Your task to perform on an android device: turn vacation reply on in the gmail app Image 0: 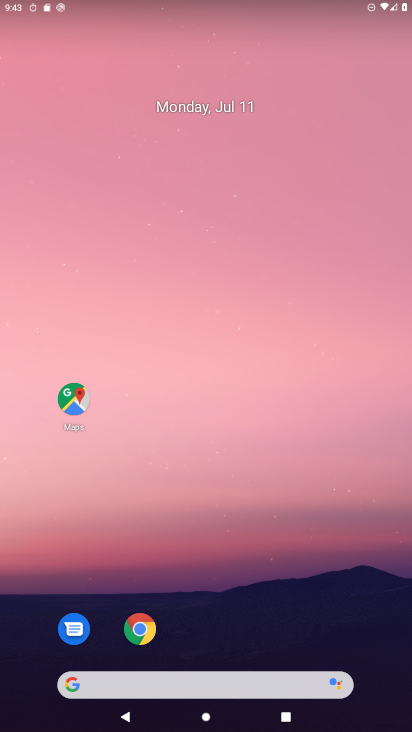
Step 0: drag from (227, 646) to (247, 98)
Your task to perform on an android device: turn vacation reply on in the gmail app Image 1: 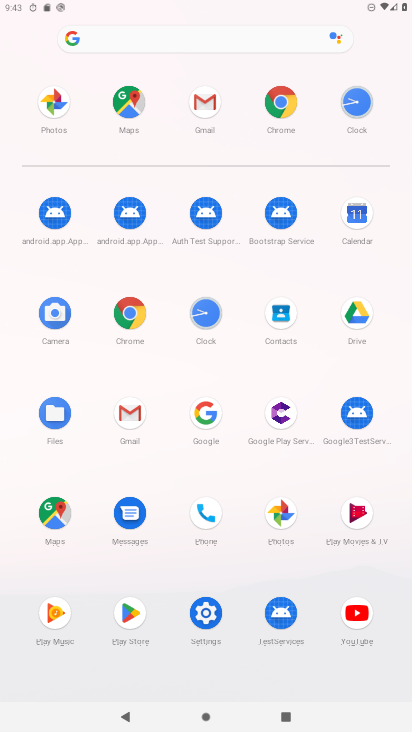
Step 1: click (208, 88)
Your task to perform on an android device: turn vacation reply on in the gmail app Image 2: 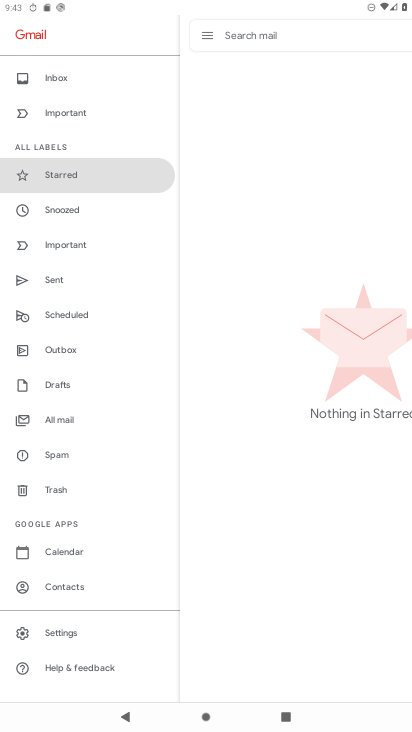
Step 2: click (107, 633)
Your task to perform on an android device: turn vacation reply on in the gmail app Image 3: 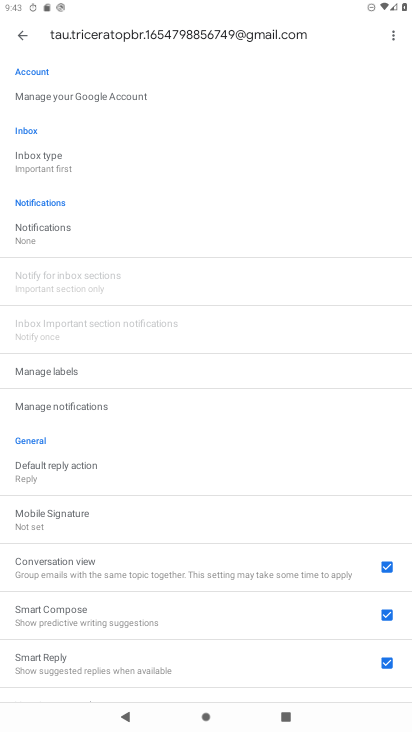
Step 3: drag from (175, 617) to (169, 184)
Your task to perform on an android device: turn vacation reply on in the gmail app Image 4: 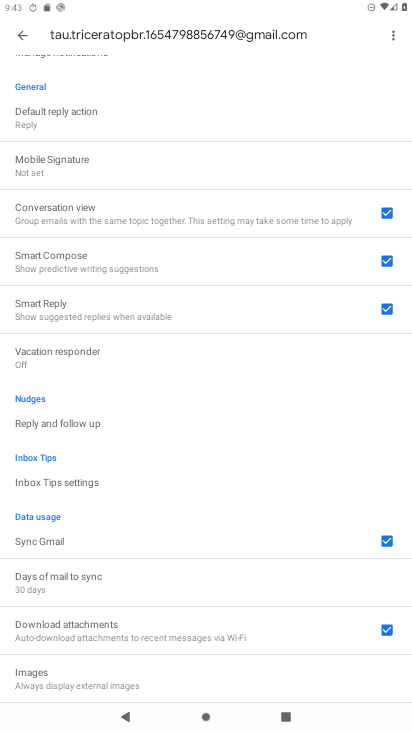
Step 4: click (146, 364)
Your task to perform on an android device: turn vacation reply on in the gmail app Image 5: 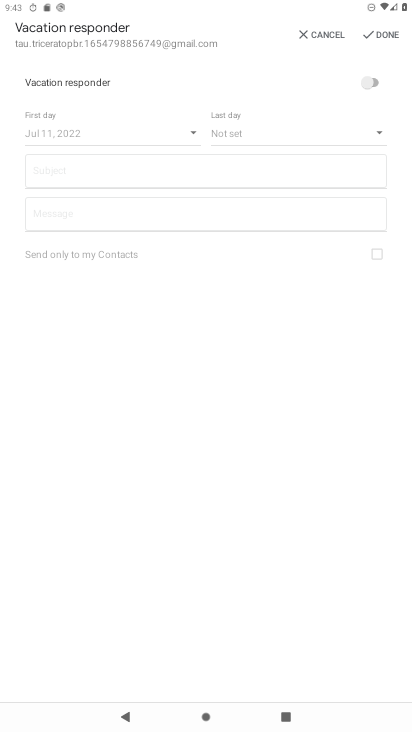
Step 5: click (365, 84)
Your task to perform on an android device: turn vacation reply on in the gmail app Image 6: 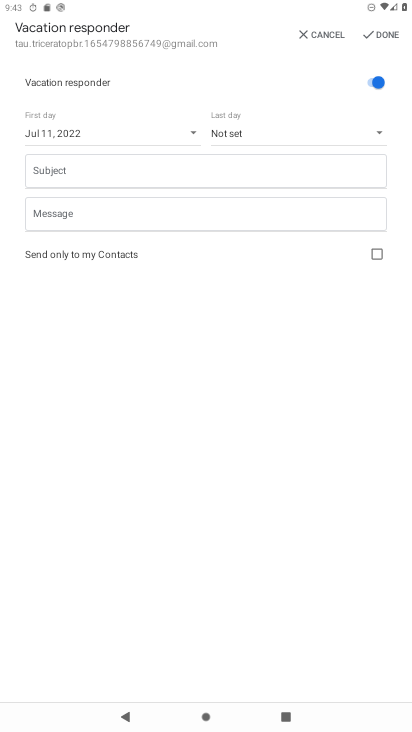
Step 6: click (383, 31)
Your task to perform on an android device: turn vacation reply on in the gmail app Image 7: 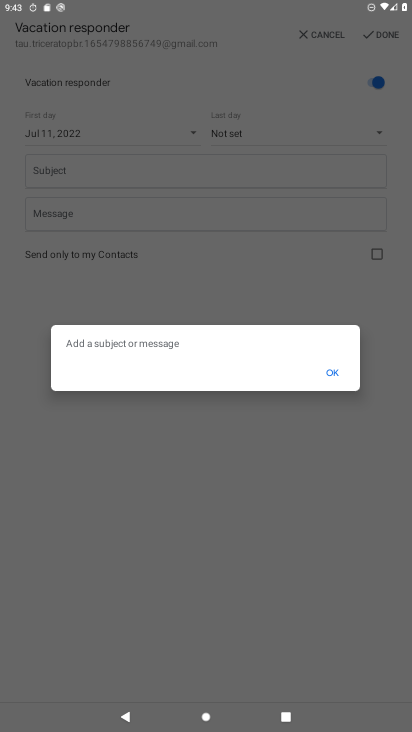
Step 7: task complete